Your task to perform on an android device: Go to notification settings Image 0: 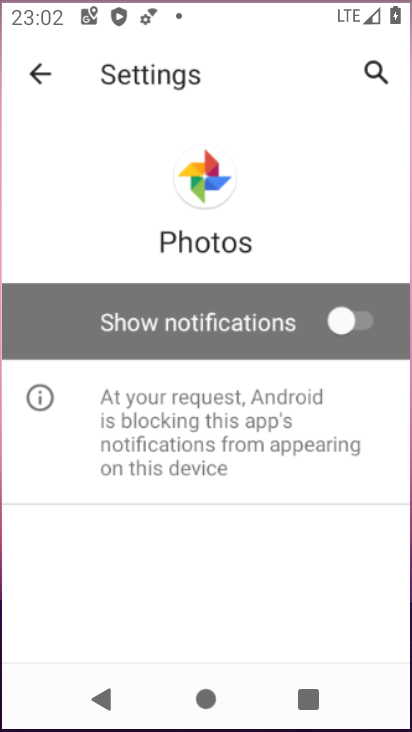
Step 0: drag from (355, 463) to (347, 213)
Your task to perform on an android device: Go to notification settings Image 1: 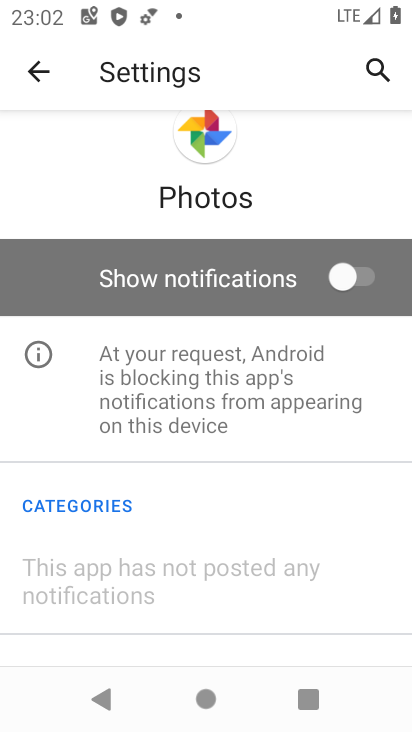
Step 1: press home button
Your task to perform on an android device: Go to notification settings Image 2: 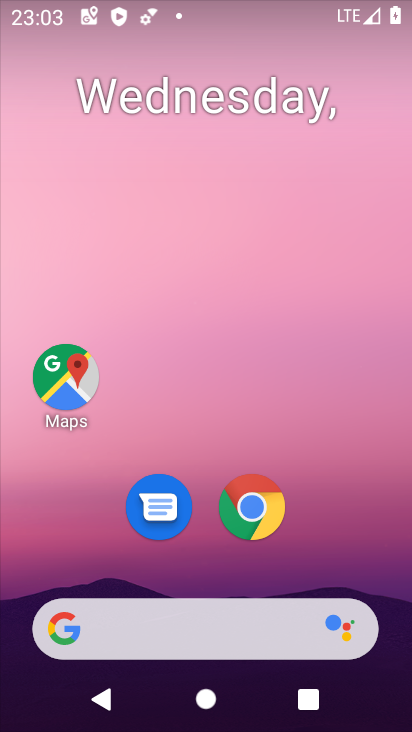
Step 2: drag from (320, 574) to (320, 220)
Your task to perform on an android device: Go to notification settings Image 3: 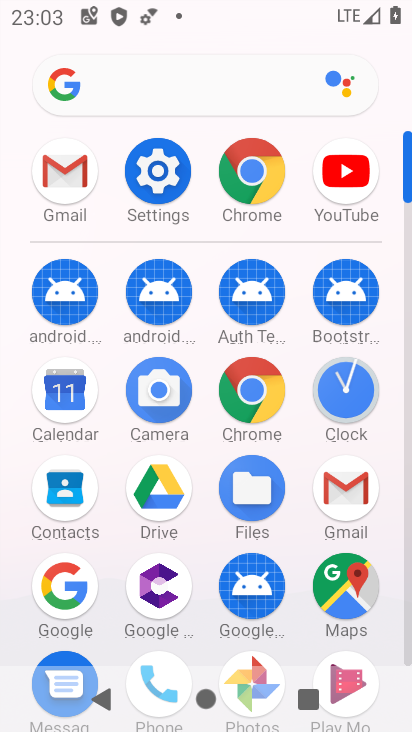
Step 3: click (163, 172)
Your task to perform on an android device: Go to notification settings Image 4: 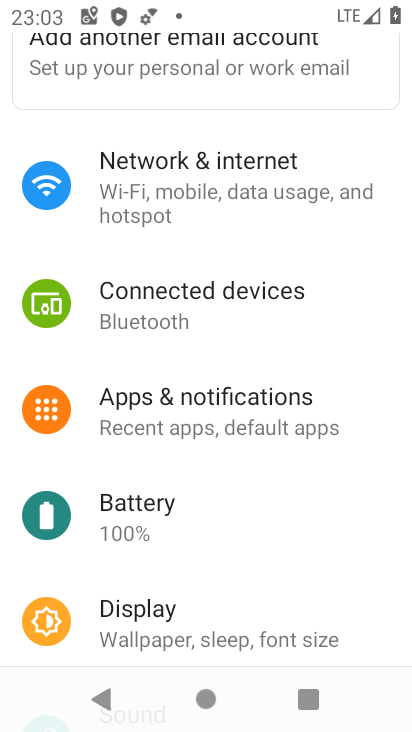
Step 4: click (180, 397)
Your task to perform on an android device: Go to notification settings Image 5: 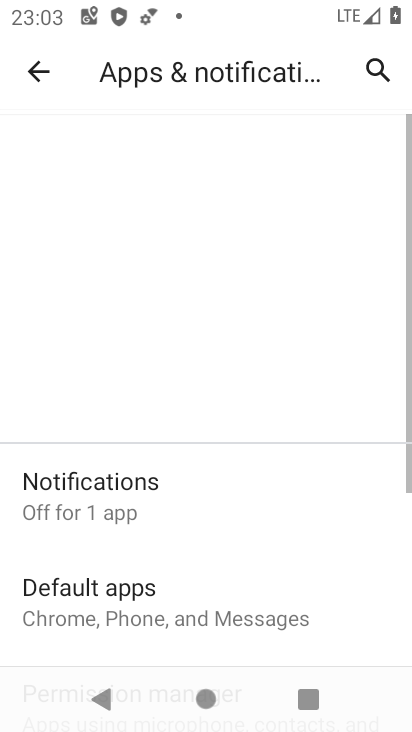
Step 5: click (132, 474)
Your task to perform on an android device: Go to notification settings Image 6: 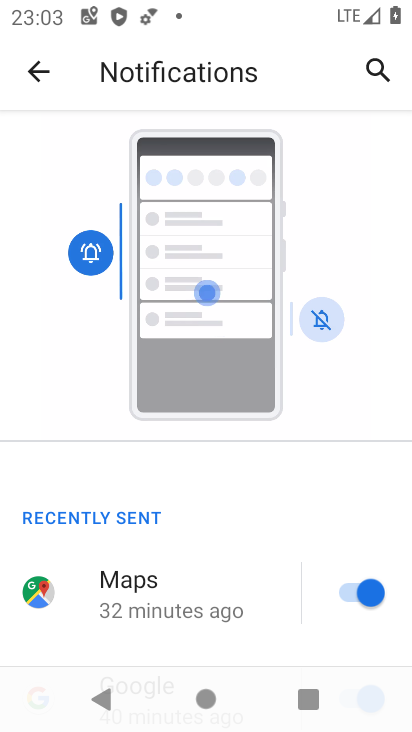
Step 6: task complete